Your task to perform on an android device: Open location settings Image 0: 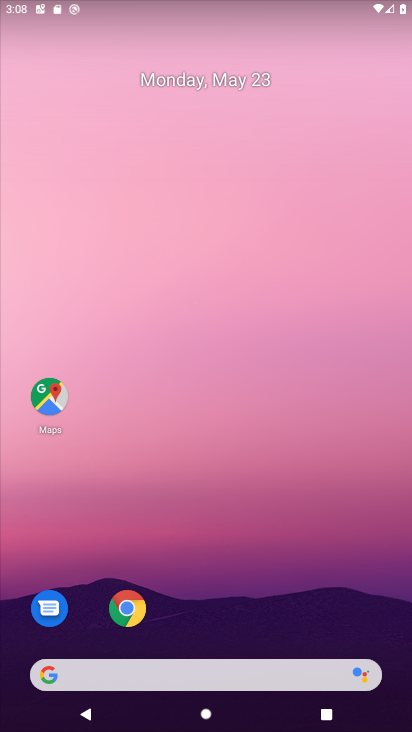
Step 0: drag from (225, 612) to (201, 44)
Your task to perform on an android device: Open location settings Image 1: 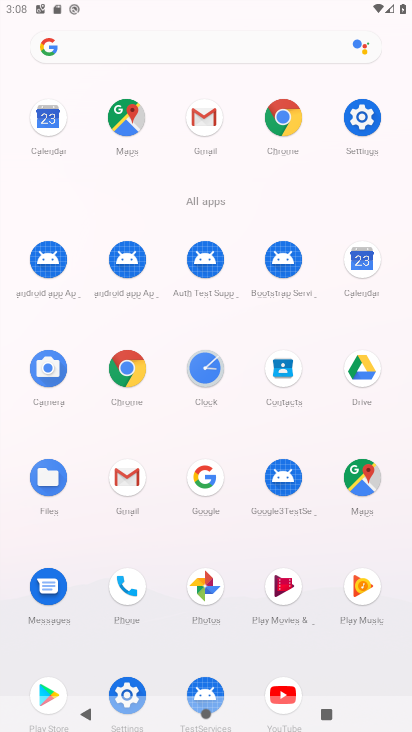
Step 1: click (370, 127)
Your task to perform on an android device: Open location settings Image 2: 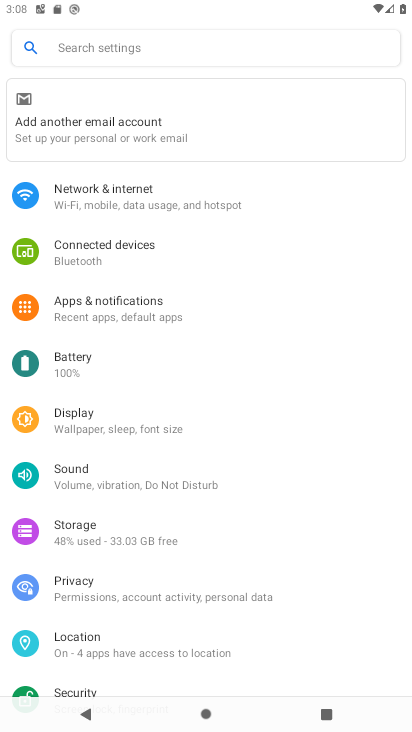
Step 2: click (142, 646)
Your task to perform on an android device: Open location settings Image 3: 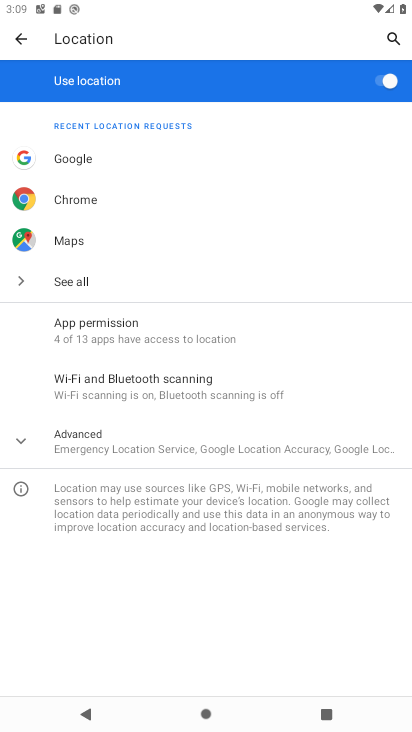
Step 3: task complete